Your task to perform on an android device: What's on my calendar tomorrow? Image 0: 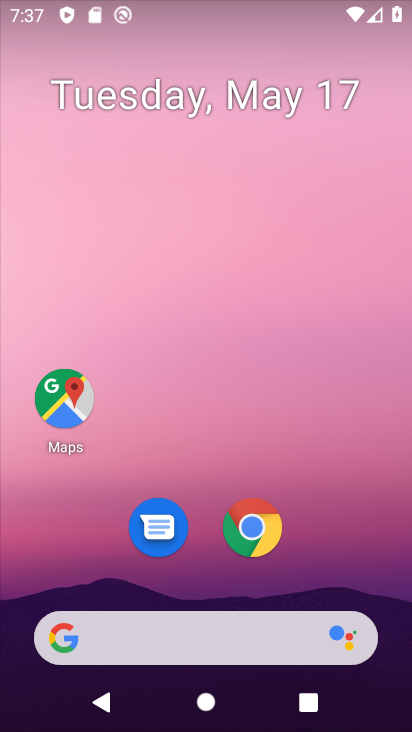
Step 0: drag from (189, 674) to (229, 369)
Your task to perform on an android device: What's on my calendar tomorrow? Image 1: 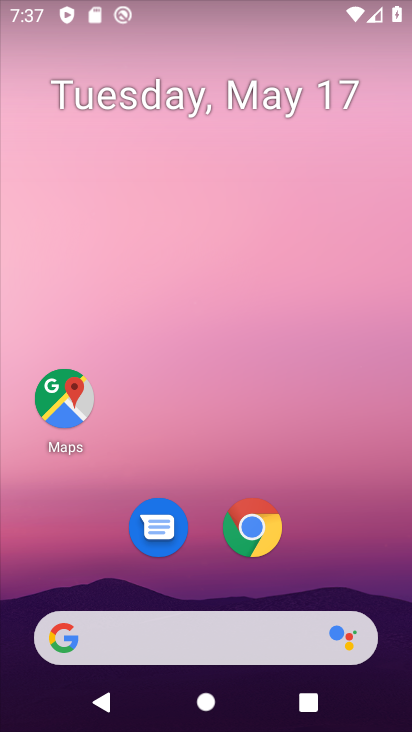
Step 1: drag from (259, 676) to (301, 97)
Your task to perform on an android device: What's on my calendar tomorrow? Image 2: 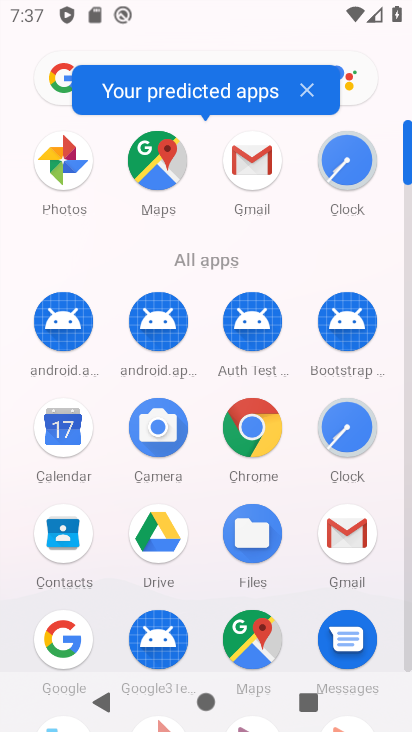
Step 2: click (82, 448)
Your task to perform on an android device: What's on my calendar tomorrow? Image 3: 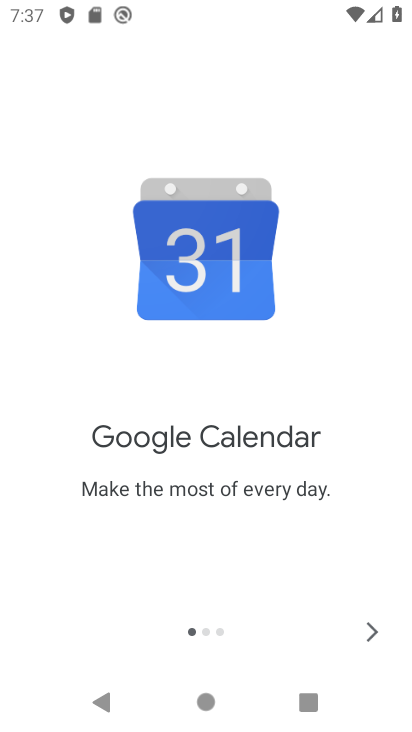
Step 3: click (361, 632)
Your task to perform on an android device: What's on my calendar tomorrow? Image 4: 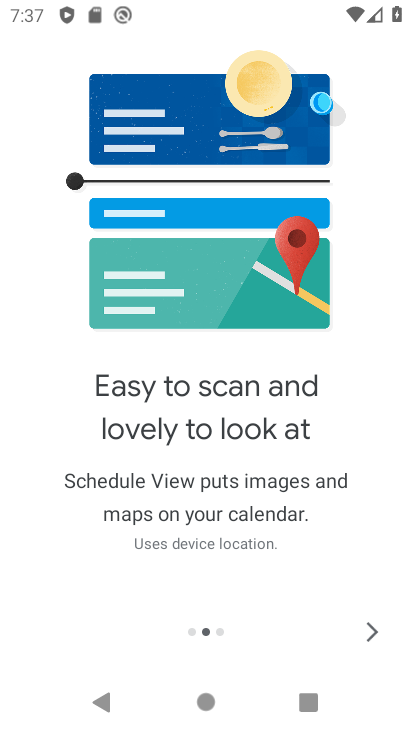
Step 4: click (358, 627)
Your task to perform on an android device: What's on my calendar tomorrow? Image 5: 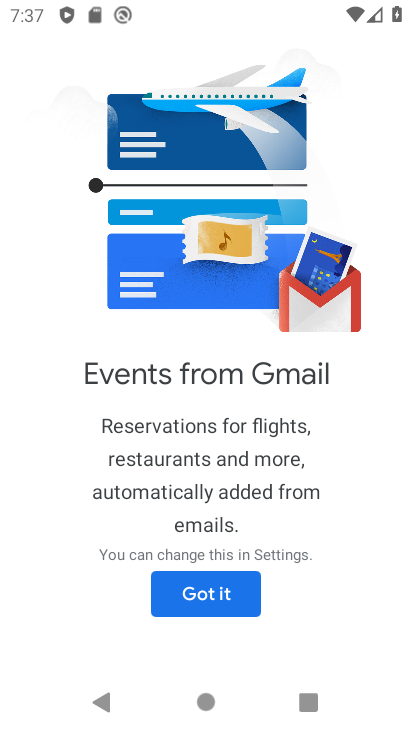
Step 5: click (212, 584)
Your task to perform on an android device: What's on my calendar tomorrow? Image 6: 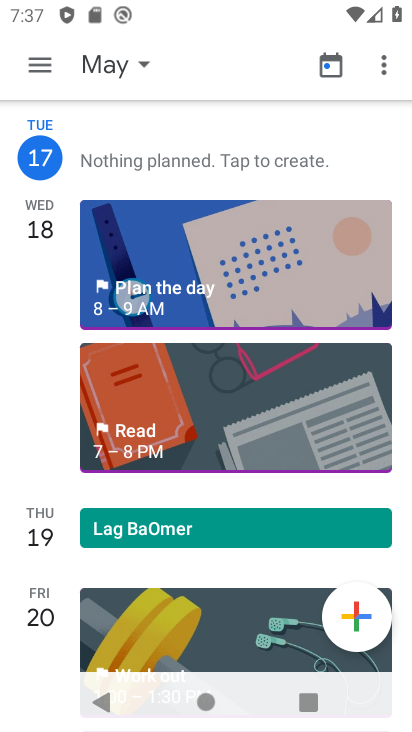
Step 6: task complete